Your task to perform on an android device: Clear all items from cart on target. Search for razer thresher on target, select the first entry, add it to the cart, then select checkout. Image 0: 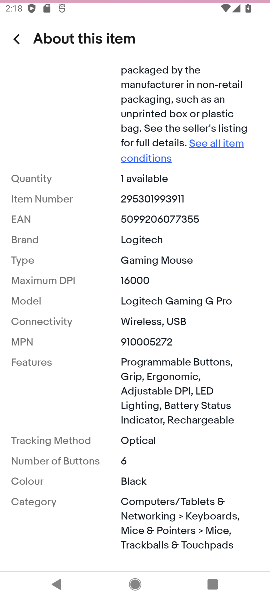
Step 0: click (48, 505)
Your task to perform on an android device: Clear all items from cart on target. Search for razer thresher on target, select the first entry, add it to the cart, then select checkout. Image 1: 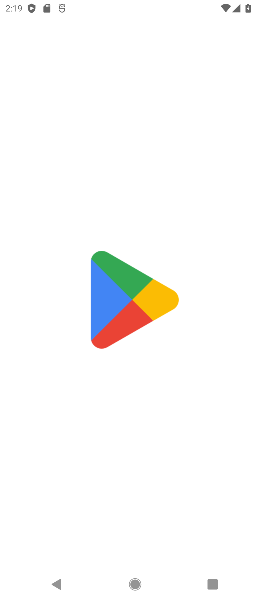
Step 1: press home button
Your task to perform on an android device: Clear all items from cart on target. Search for razer thresher on target, select the first entry, add it to the cart, then select checkout. Image 2: 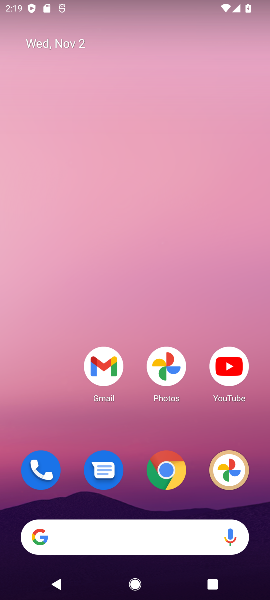
Step 2: drag from (107, 502) to (127, 137)
Your task to perform on an android device: Clear all items from cart on target. Search for razer thresher on target, select the first entry, add it to the cart, then select checkout. Image 3: 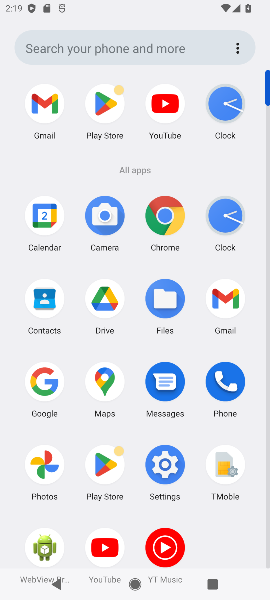
Step 3: click (40, 379)
Your task to perform on an android device: Clear all items from cart on target. Search for razer thresher on target, select the first entry, add it to the cart, then select checkout. Image 4: 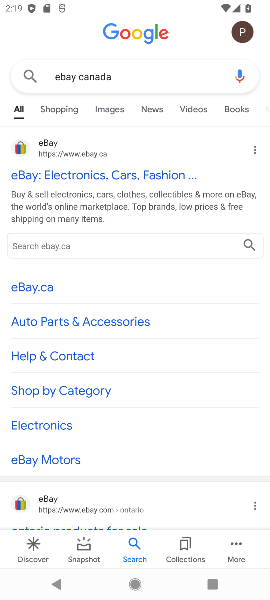
Step 4: click (122, 69)
Your task to perform on an android device: Clear all items from cart on target. Search for razer thresher on target, select the first entry, add it to the cart, then select checkout. Image 5: 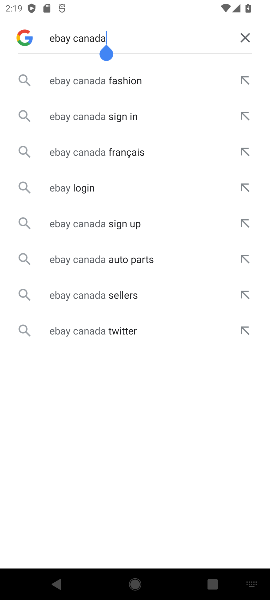
Step 5: click (248, 38)
Your task to perform on an android device: Clear all items from cart on target. Search for razer thresher on target, select the first entry, add it to the cart, then select checkout. Image 6: 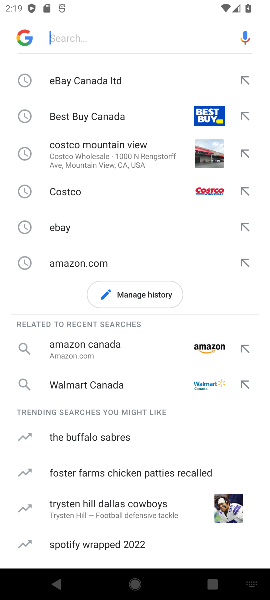
Step 6: click (117, 33)
Your task to perform on an android device: Clear all items from cart on target. Search for razer thresher on target, select the first entry, add it to the cart, then select checkout. Image 7: 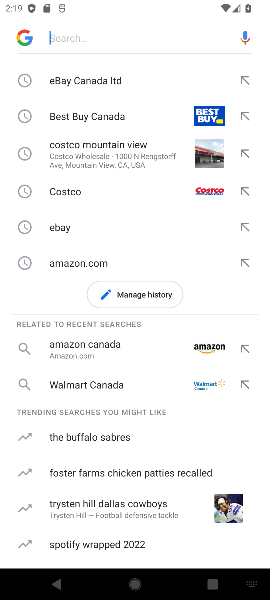
Step 7: click (117, 42)
Your task to perform on an android device: Clear all items from cart on target. Search for razer thresher on target, select the first entry, add it to the cart, then select checkout. Image 8: 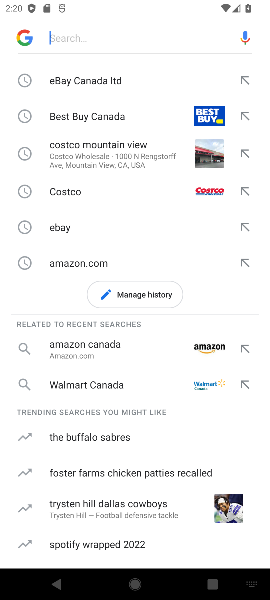
Step 8: type "target "
Your task to perform on an android device: Clear all items from cart on target. Search for razer thresher on target, select the first entry, add it to the cart, then select checkout. Image 9: 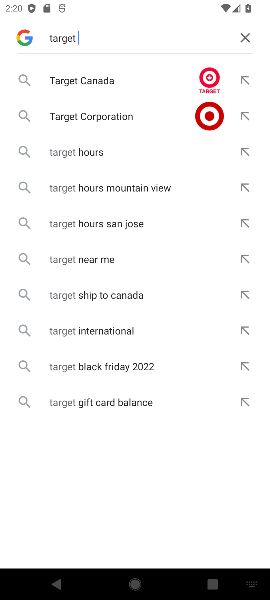
Step 9: click (76, 81)
Your task to perform on an android device: Clear all items from cart on target. Search for razer thresher on target, select the first entry, add it to the cart, then select checkout. Image 10: 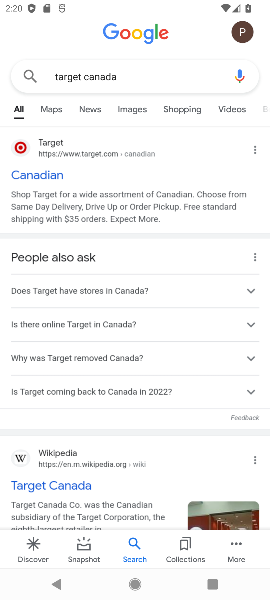
Step 10: click (20, 142)
Your task to perform on an android device: Clear all items from cart on target. Search for razer thresher on target, select the first entry, add it to the cart, then select checkout. Image 11: 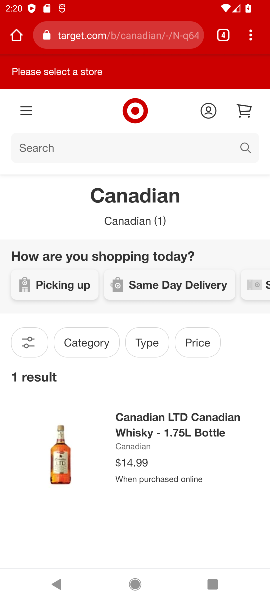
Step 11: click (68, 146)
Your task to perform on an android device: Clear all items from cart on target. Search for razer thresher on target, select the first entry, add it to the cart, then select checkout. Image 12: 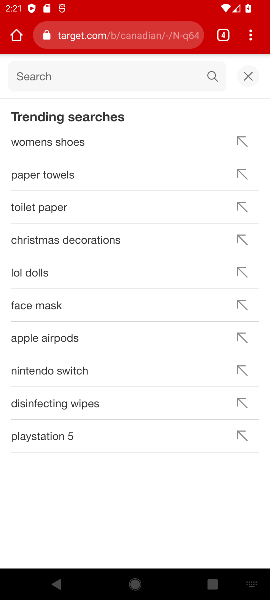
Step 12: type "razer thresher  "
Your task to perform on an android device: Clear all items from cart on target. Search for razer thresher on target, select the first entry, add it to the cart, then select checkout. Image 13: 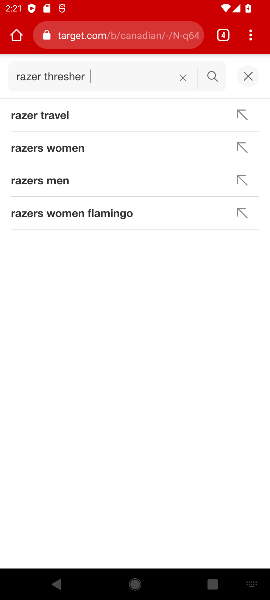
Step 13: click (206, 72)
Your task to perform on an android device: Clear all items from cart on target. Search for razer thresher on target, select the first entry, add it to the cart, then select checkout. Image 14: 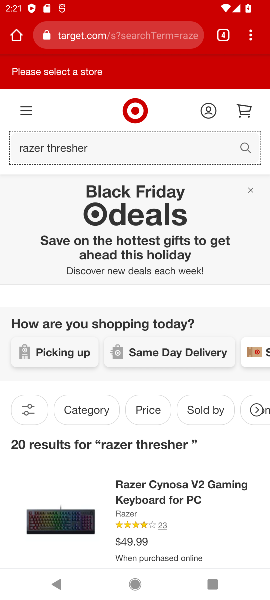
Step 14: drag from (173, 536) to (213, 349)
Your task to perform on an android device: Clear all items from cart on target. Search for razer thresher on target, select the first entry, add it to the cart, then select checkout. Image 15: 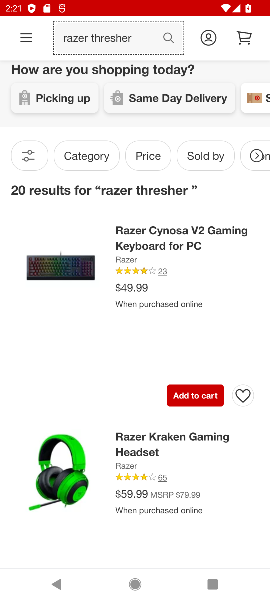
Step 15: drag from (206, 508) to (212, 391)
Your task to perform on an android device: Clear all items from cart on target. Search for razer thresher on target, select the first entry, add it to the cart, then select checkout. Image 16: 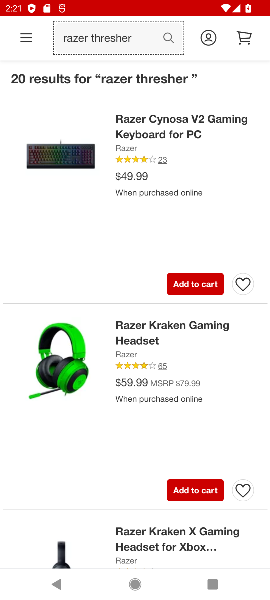
Step 16: click (189, 489)
Your task to perform on an android device: Clear all items from cart on target. Search for razer thresher on target, select the first entry, add it to the cart, then select checkout. Image 17: 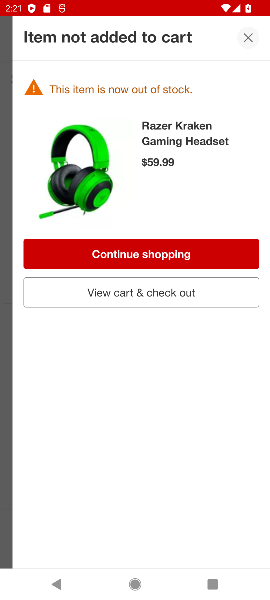
Step 17: click (247, 35)
Your task to perform on an android device: Clear all items from cart on target. Search for razer thresher on target, select the first entry, add it to the cart, then select checkout. Image 18: 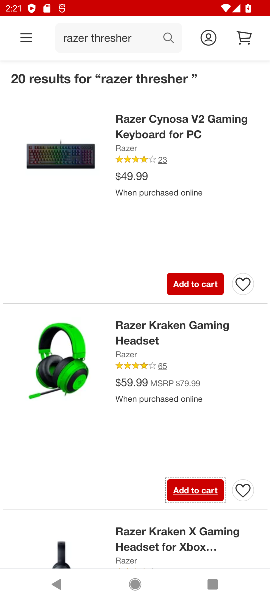
Step 18: click (184, 285)
Your task to perform on an android device: Clear all items from cart on target. Search for razer thresher on target, select the first entry, add it to the cart, then select checkout. Image 19: 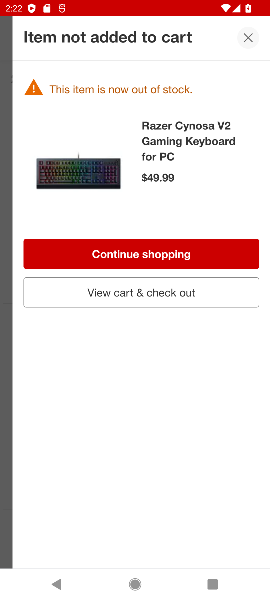
Step 19: click (247, 38)
Your task to perform on an android device: Clear all items from cart on target. Search for razer thresher on target, select the first entry, add it to the cart, then select checkout. Image 20: 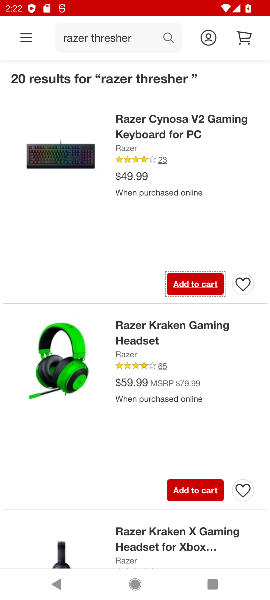
Step 20: click (199, 284)
Your task to perform on an android device: Clear all items from cart on target. Search for razer thresher on target, select the first entry, add it to the cart, then select checkout. Image 21: 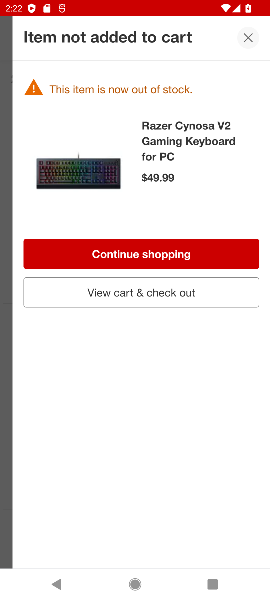
Step 21: task complete